Your task to perform on an android device: open app "Paramount+ | Peak Streaming" (install if not already installed) and enter user name: "fostered@yahoo.com" and password: "strong" Image 0: 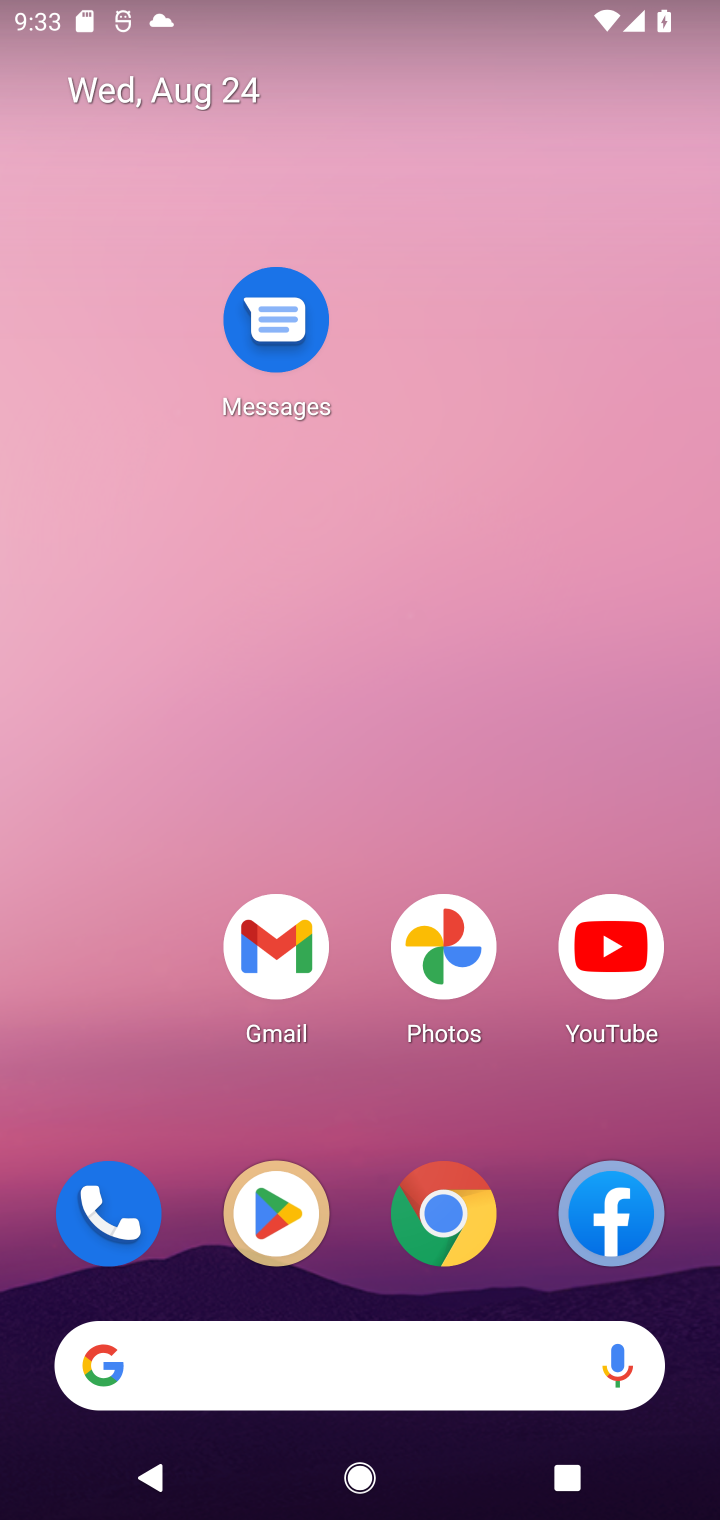
Step 0: click (299, 1213)
Your task to perform on an android device: open app "Paramount+ | Peak Streaming" (install if not already installed) and enter user name: "fostered@yahoo.com" and password: "strong" Image 1: 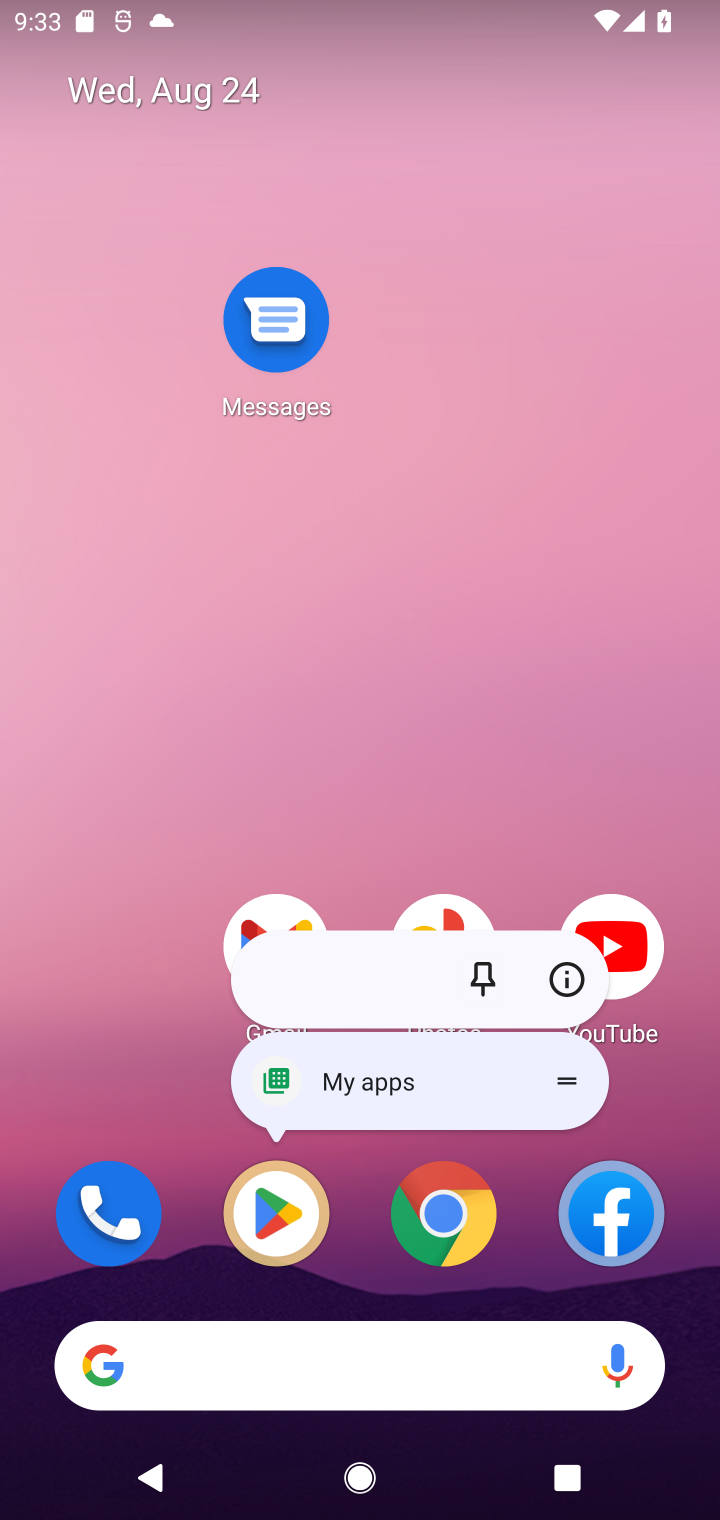
Step 1: click (274, 1233)
Your task to perform on an android device: open app "Paramount+ | Peak Streaming" (install if not already installed) and enter user name: "fostered@yahoo.com" and password: "strong" Image 2: 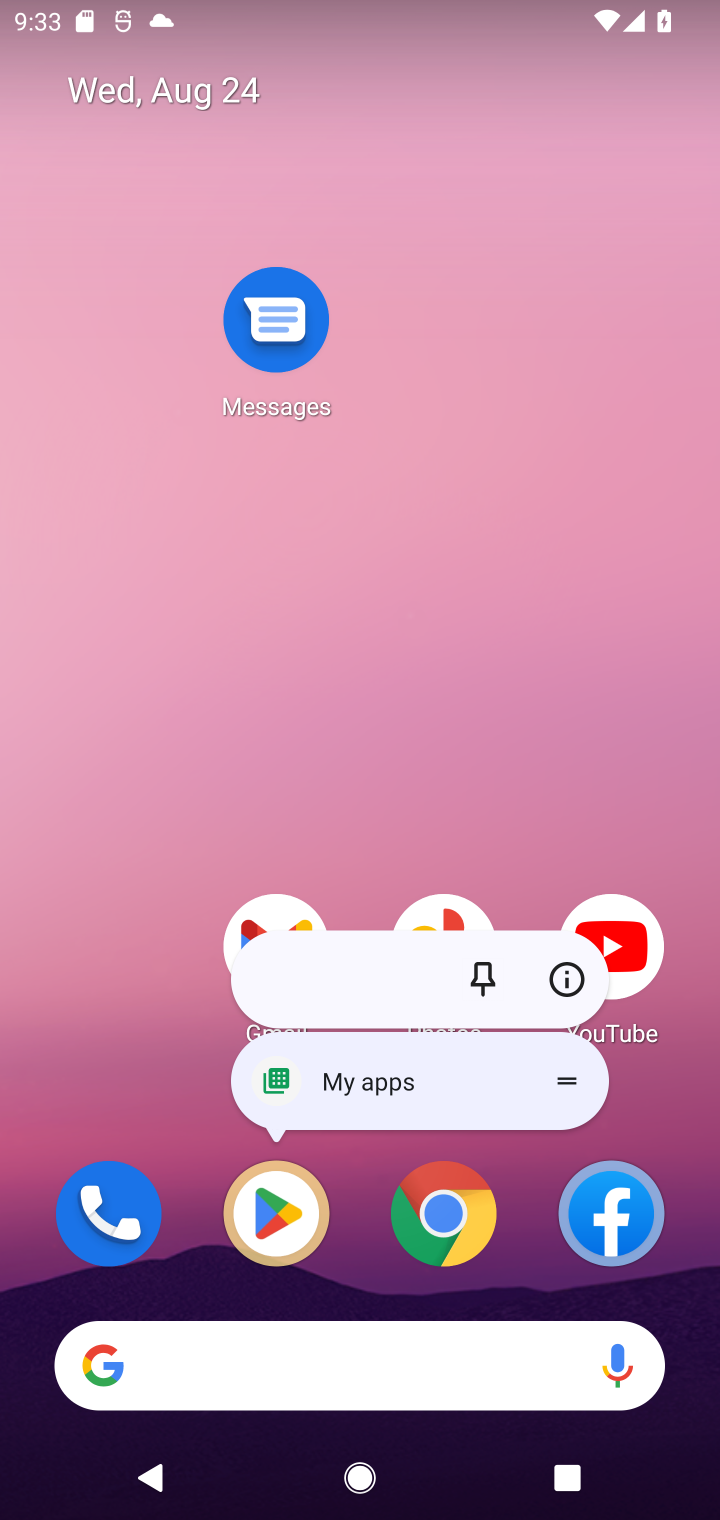
Step 2: click (276, 1231)
Your task to perform on an android device: open app "Paramount+ | Peak Streaming" (install if not already installed) and enter user name: "fostered@yahoo.com" and password: "strong" Image 3: 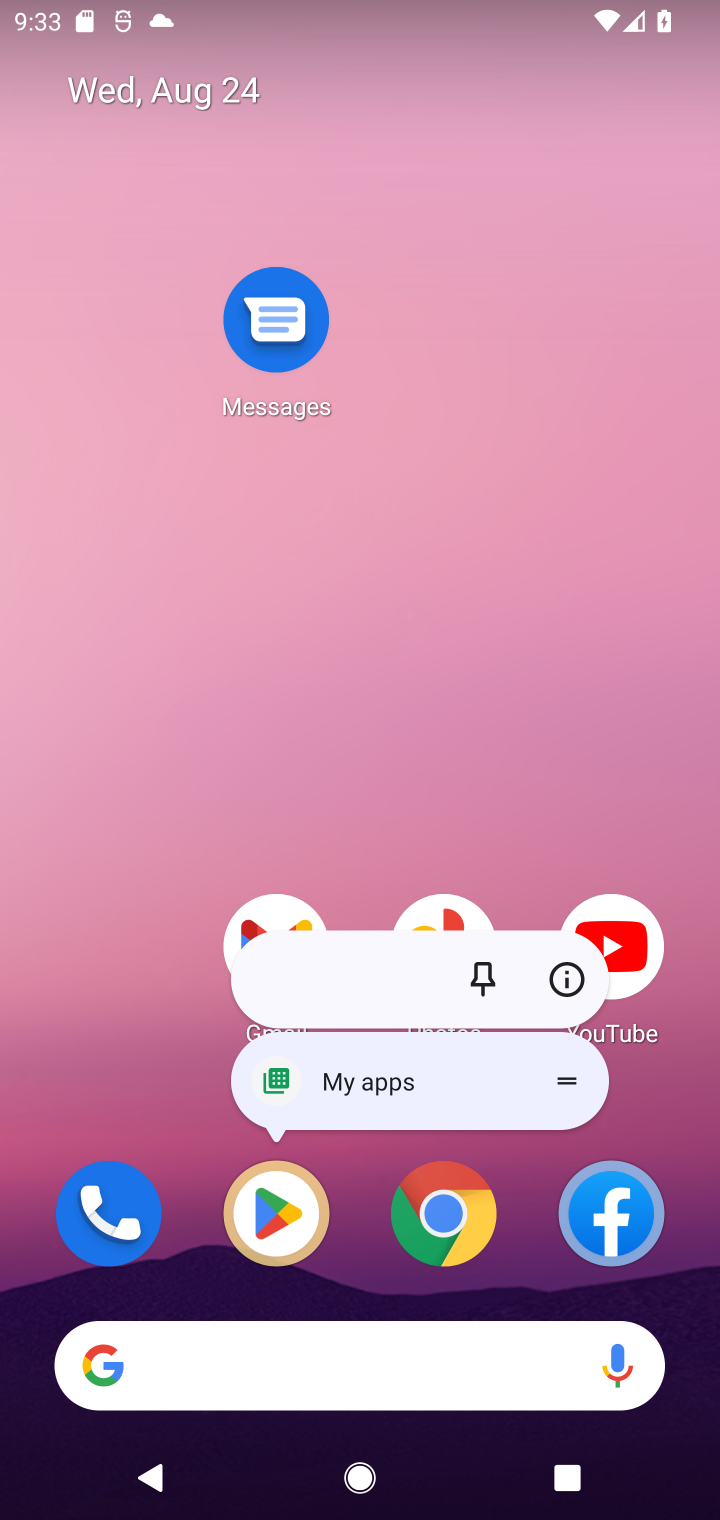
Step 3: click (305, 1203)
Your task to perform on an android device: open app "Paramount+ | Peak Streaming" (install if not already installed) and enter user name: "fostered@yahoo.com" and password: "strong" Image 4: 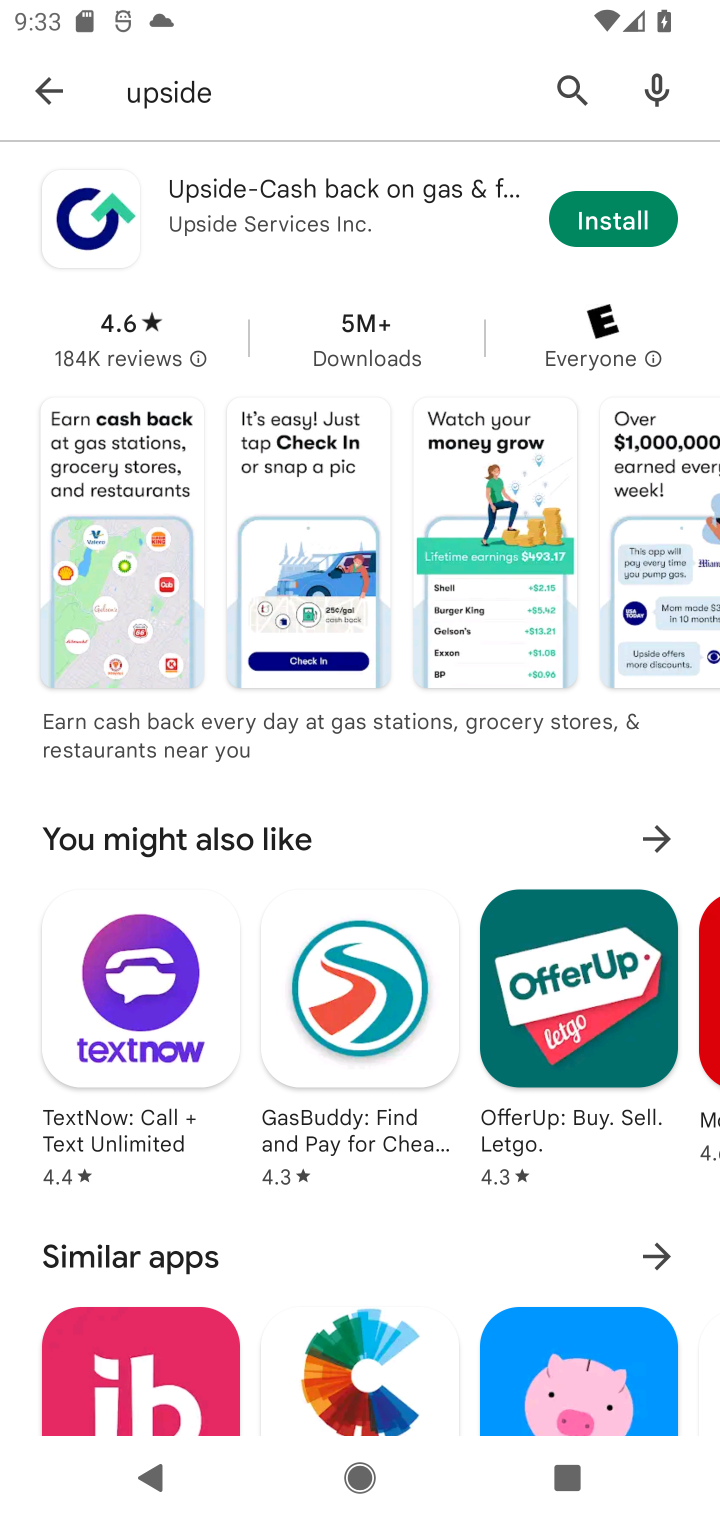
Step 4: click (302, 108)
Your task to perform on an android device: open app "Paramount+ | Peak Streaming" (install if not already installed) and enter user name: "fostered@yahoo.com" and password: "strong" Image 5: 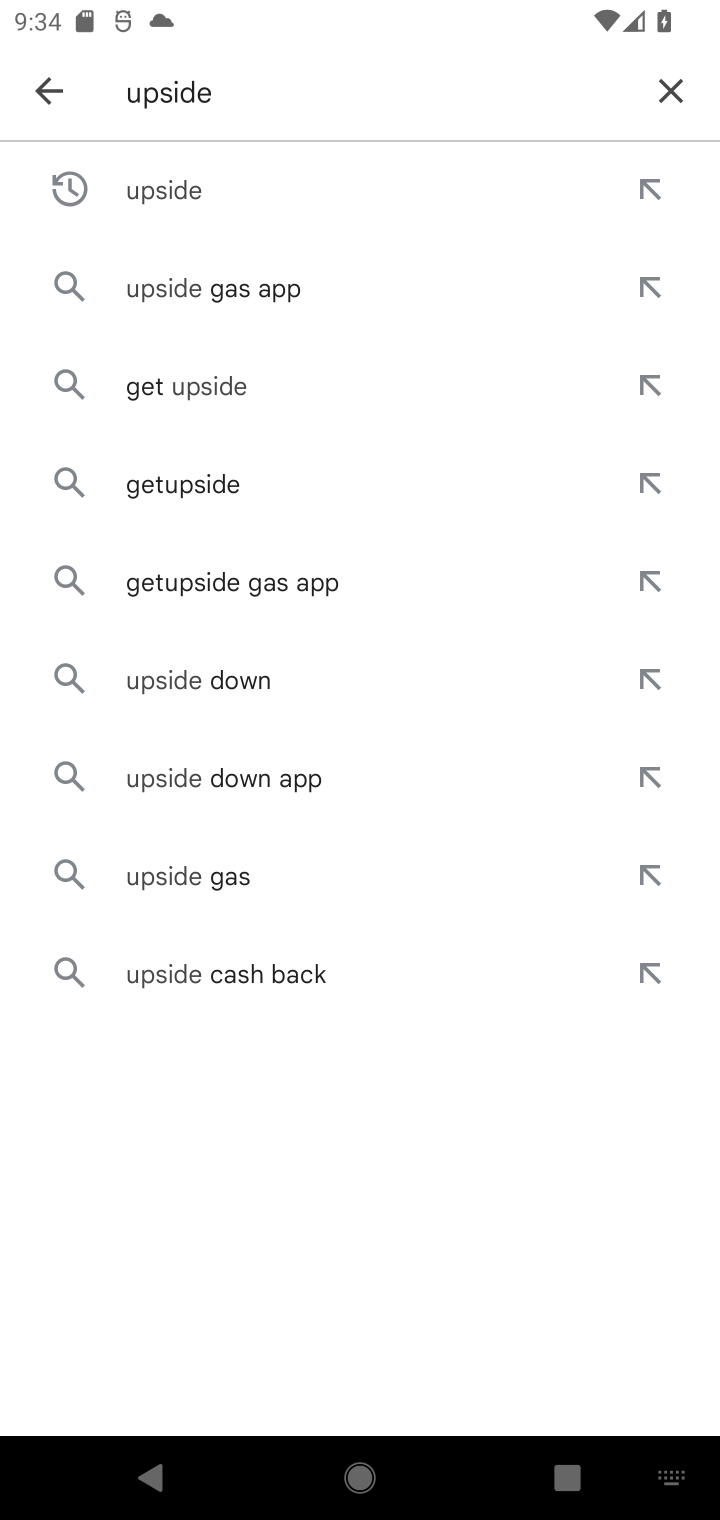
Step 5: click (672, 74)
Your task to perform on an android device: open app "Paramount+ | Peak Streaming" (install if not already installed) and enter user name: "fostered@yahoo.com" and password: "strong" Image 6: 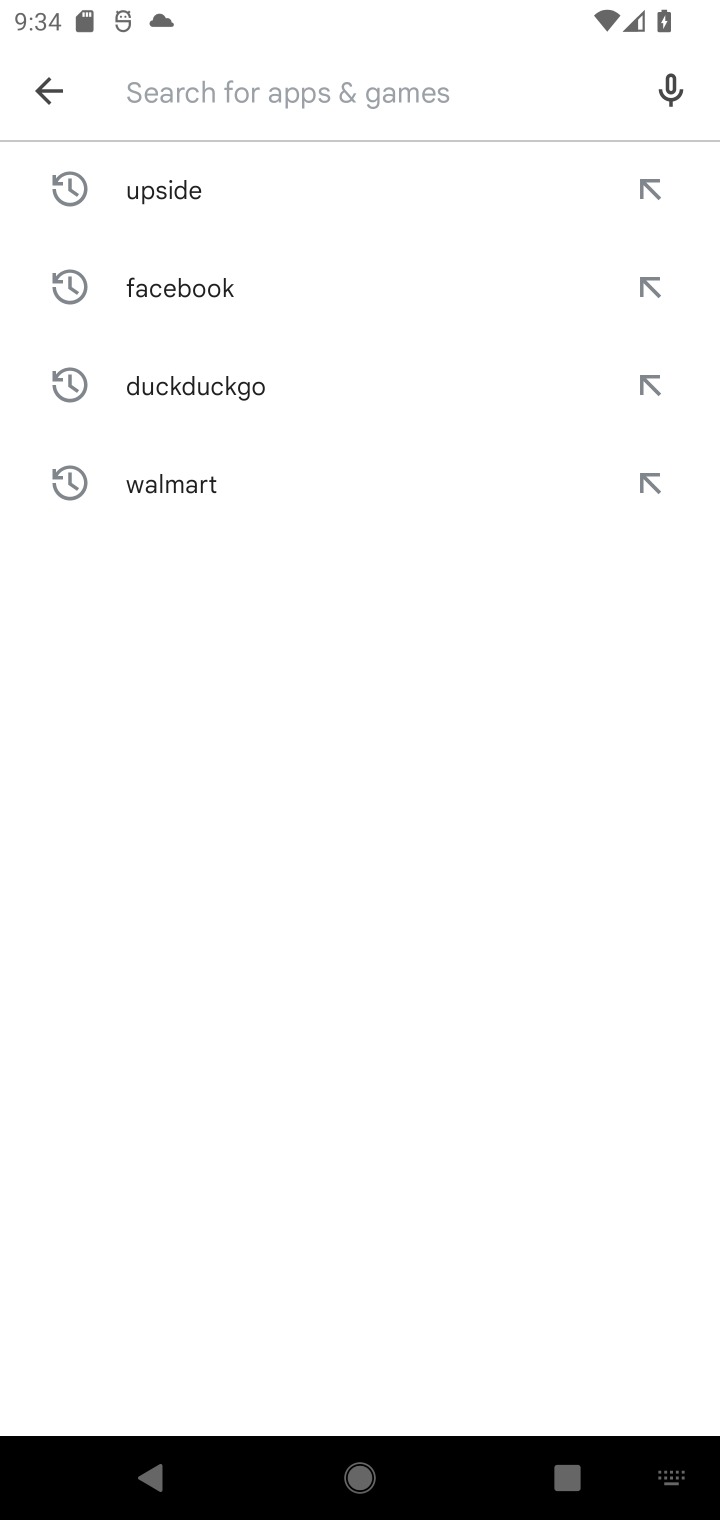
Step 6: type "paramount +"
Your task to perform on an android device: open app "Paramount+ | Peak Streaming" (install if not already installed) and enter user name: "fostered@yahoo.com" and password: "strong" Image 7: 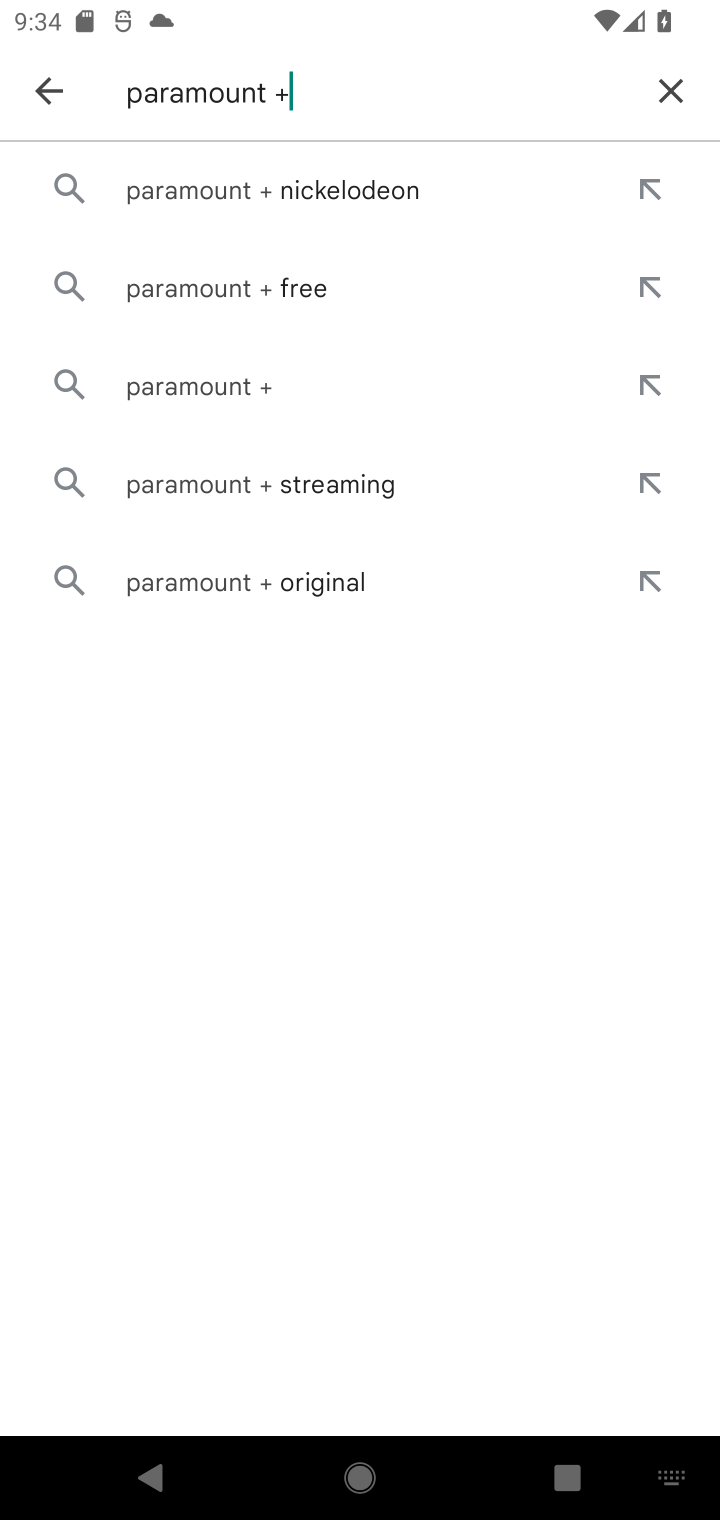
Step 7: click (272, 389)
Your task to perform on an android device: open app "Paramount+ | Peak Streaming" (install if not already installed) and enter user name: "fostered@yahoo.com" and password: "strong" Image 8: 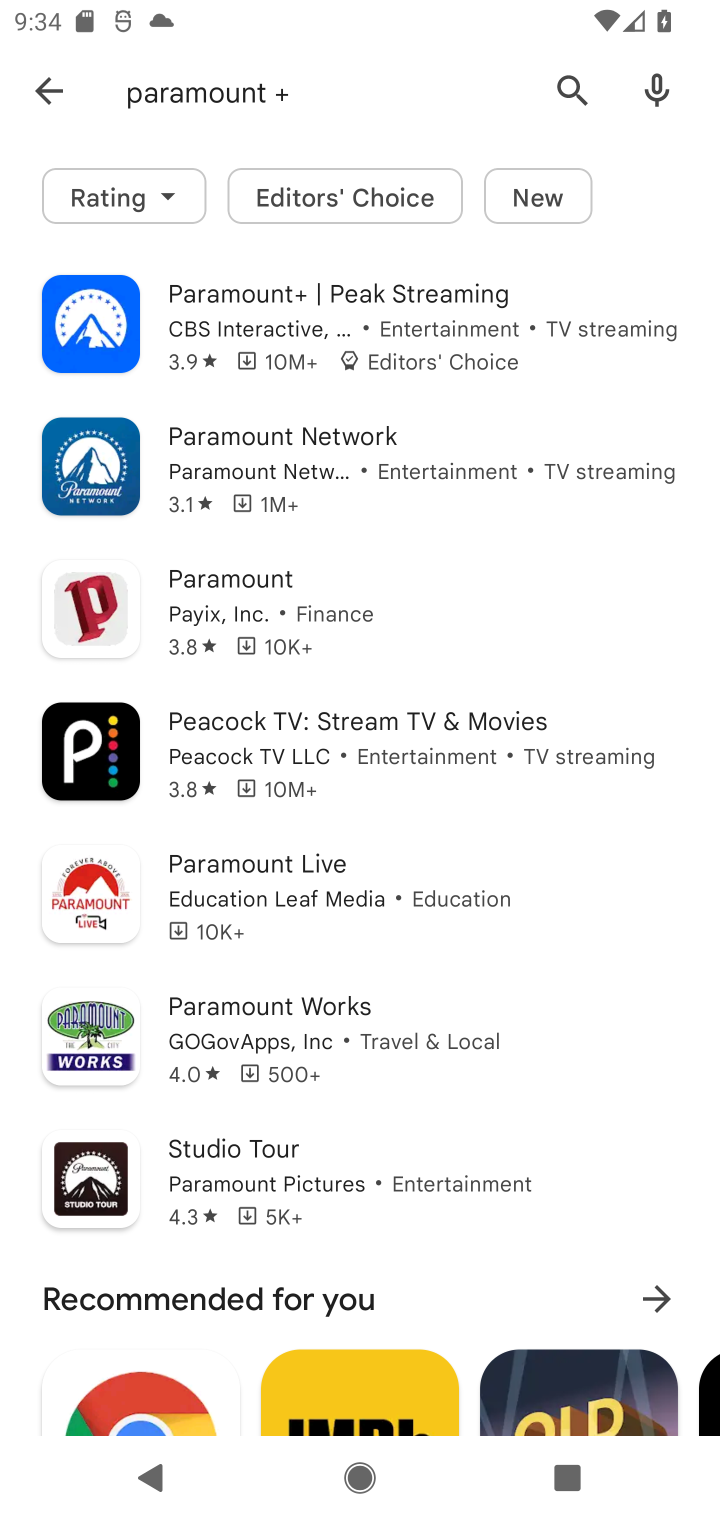
Step 8: click (338, 318)
Your task to perform on an android device: open app "Paramount+ | Peak Streaming" (install if not already installed) and enter user name: "fostered@yahoo.com" and password: "strong" Image 9: 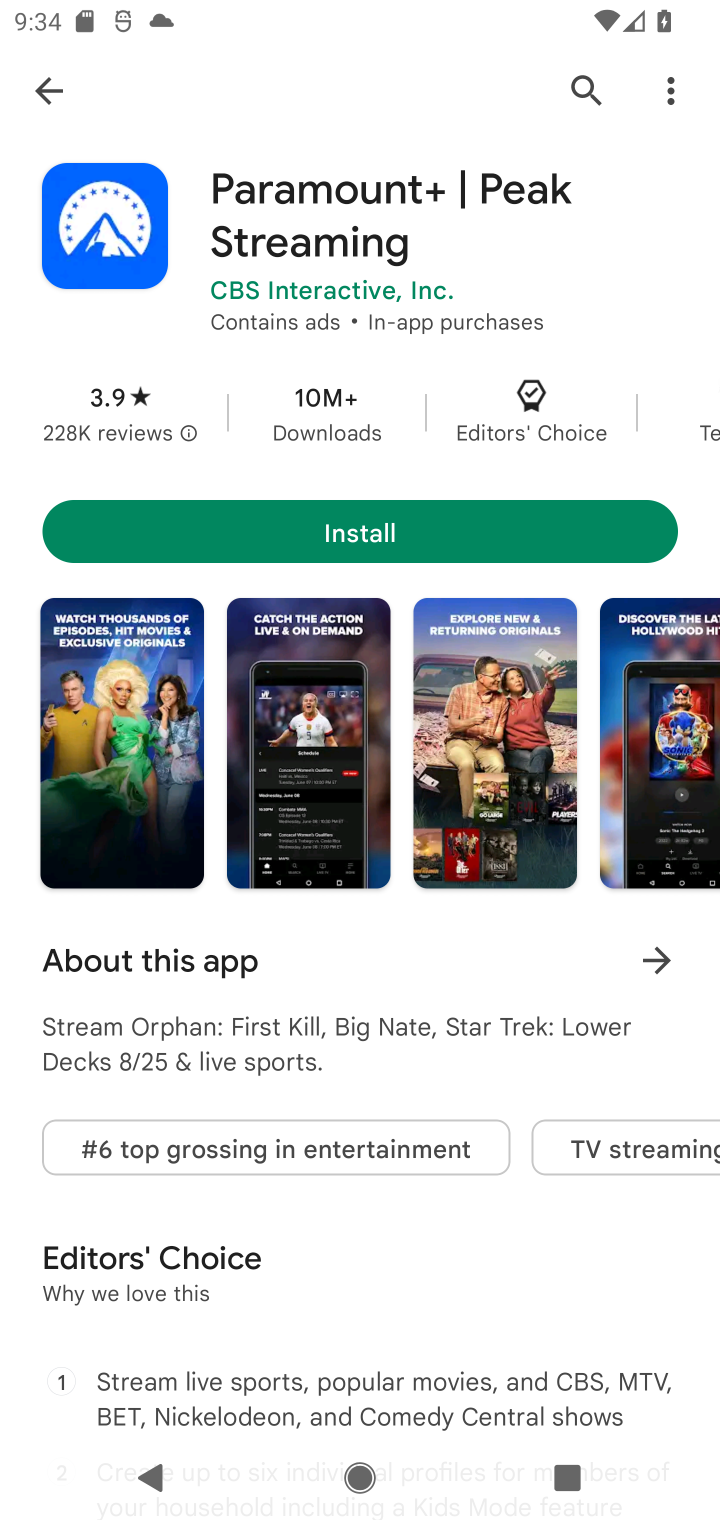
Step 9: click (383, 530)
Your task to perform on an android device: open app "Paramount+ | Peak Streaming" (install if not already installed) and enter user name: "fostered@yahoo.com" and password: "strong" Image 10: 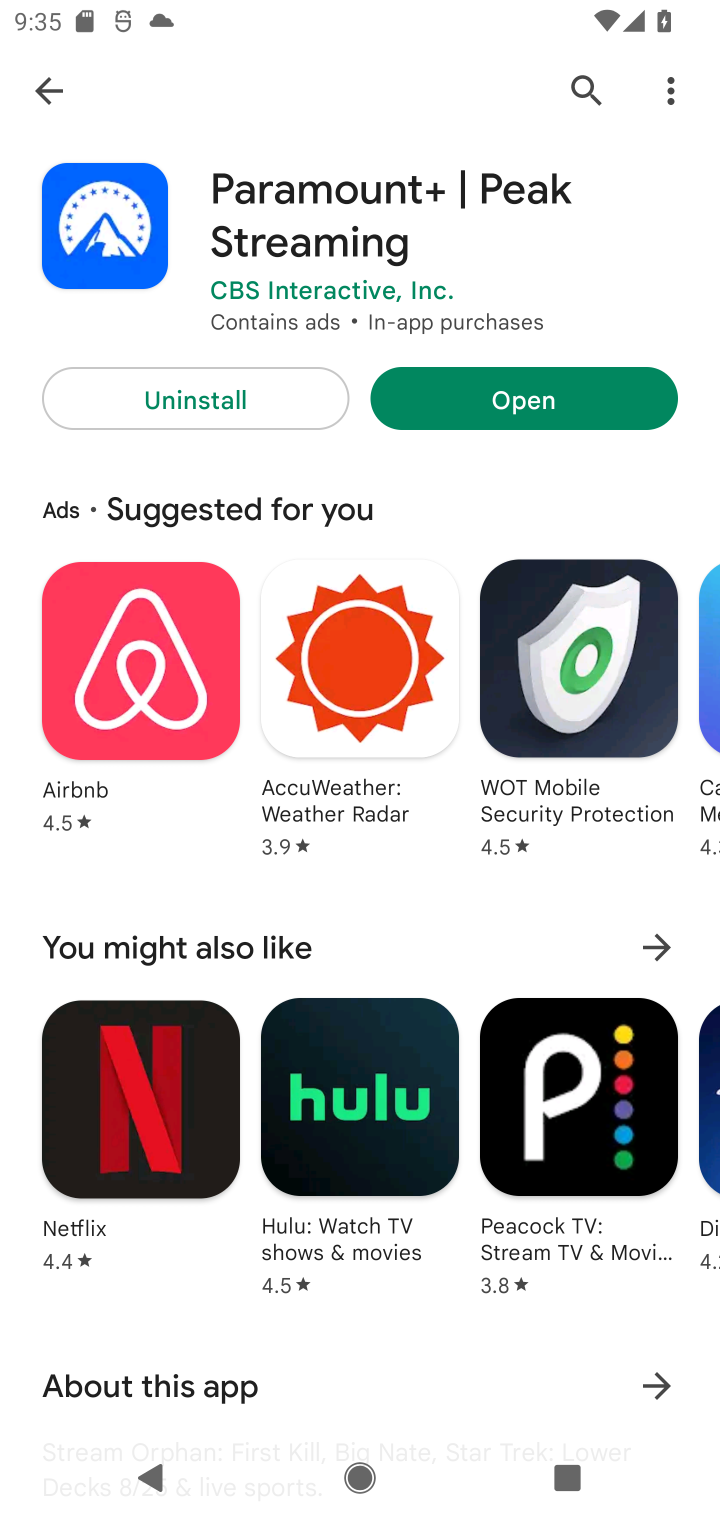
Step 10: click (509, 396)
Your task to perform on an android device: open app "Paramount+ | Peak Streaming" (install if not already installed) and enter user name: "fostered@yahoo.com" and password: "strong" Image 11: 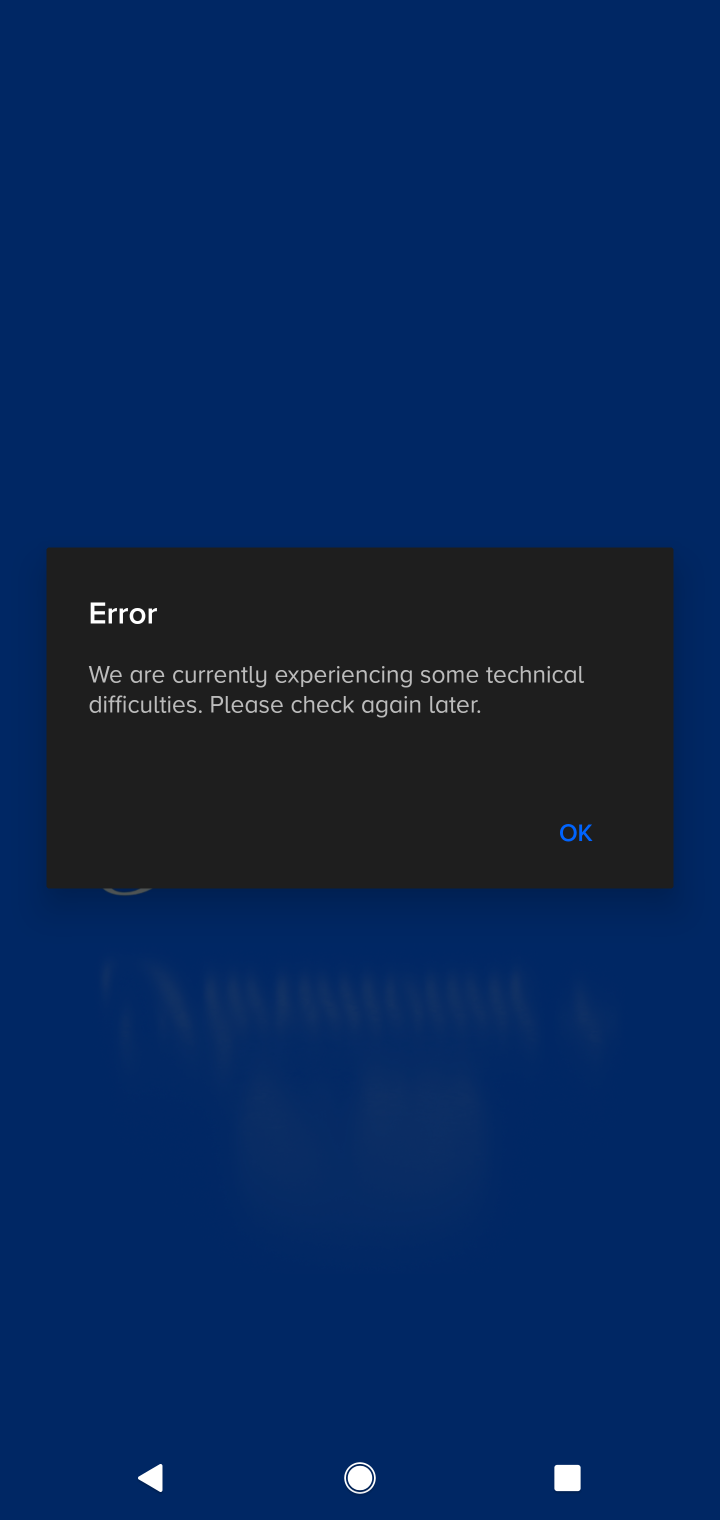
Step 11: click (598, 823)
Your task to perform on an android device: open app "Paramount+ | Peak Streaming" (install if not already installed) and enter user name: "fostered@yahoo.com" and password: "strong" Image 12: 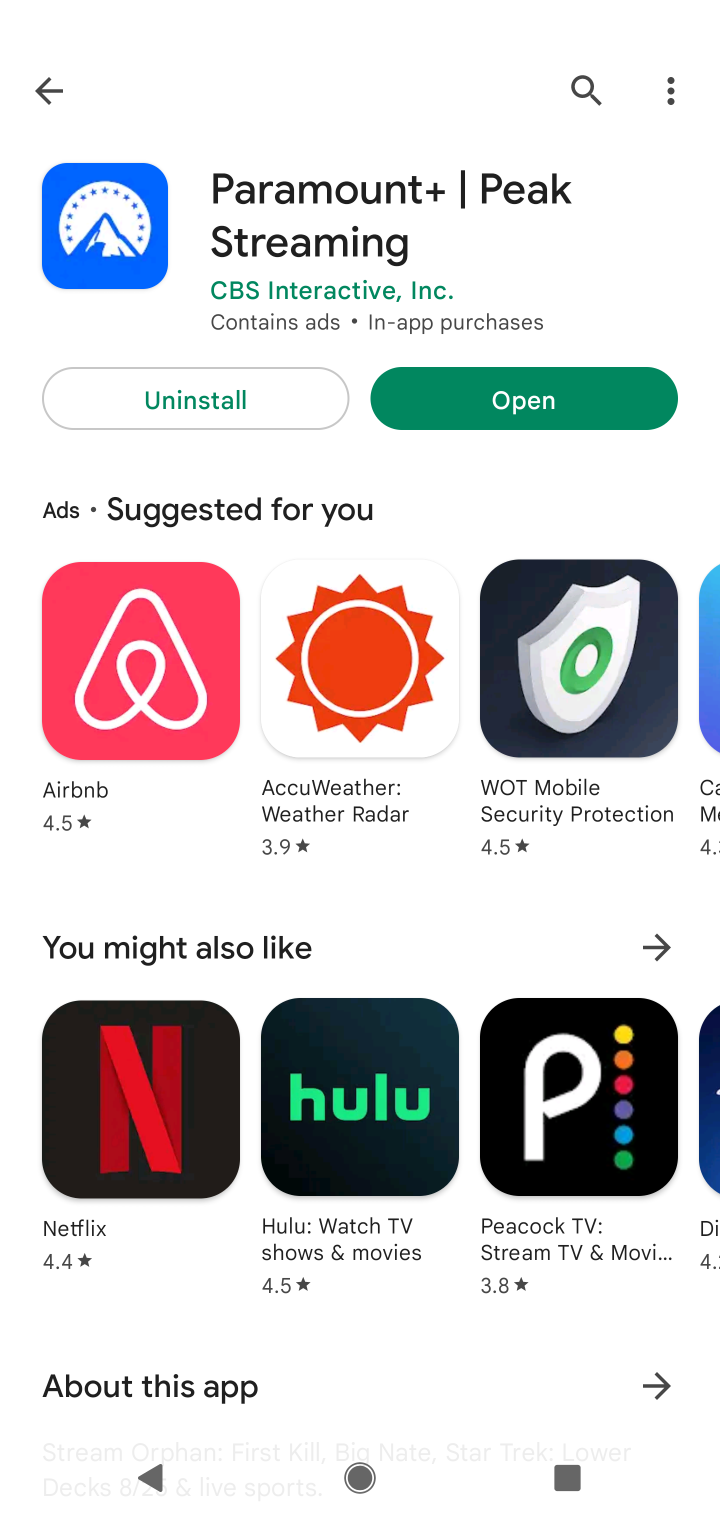
Step 12: click (573, 840)
Your task to perform on an android device: open app "Paramount+ | Peak Streaming" (install if not already installed) and enter user name: "fostered@yahoo.com" and password: "strong" Image 13: 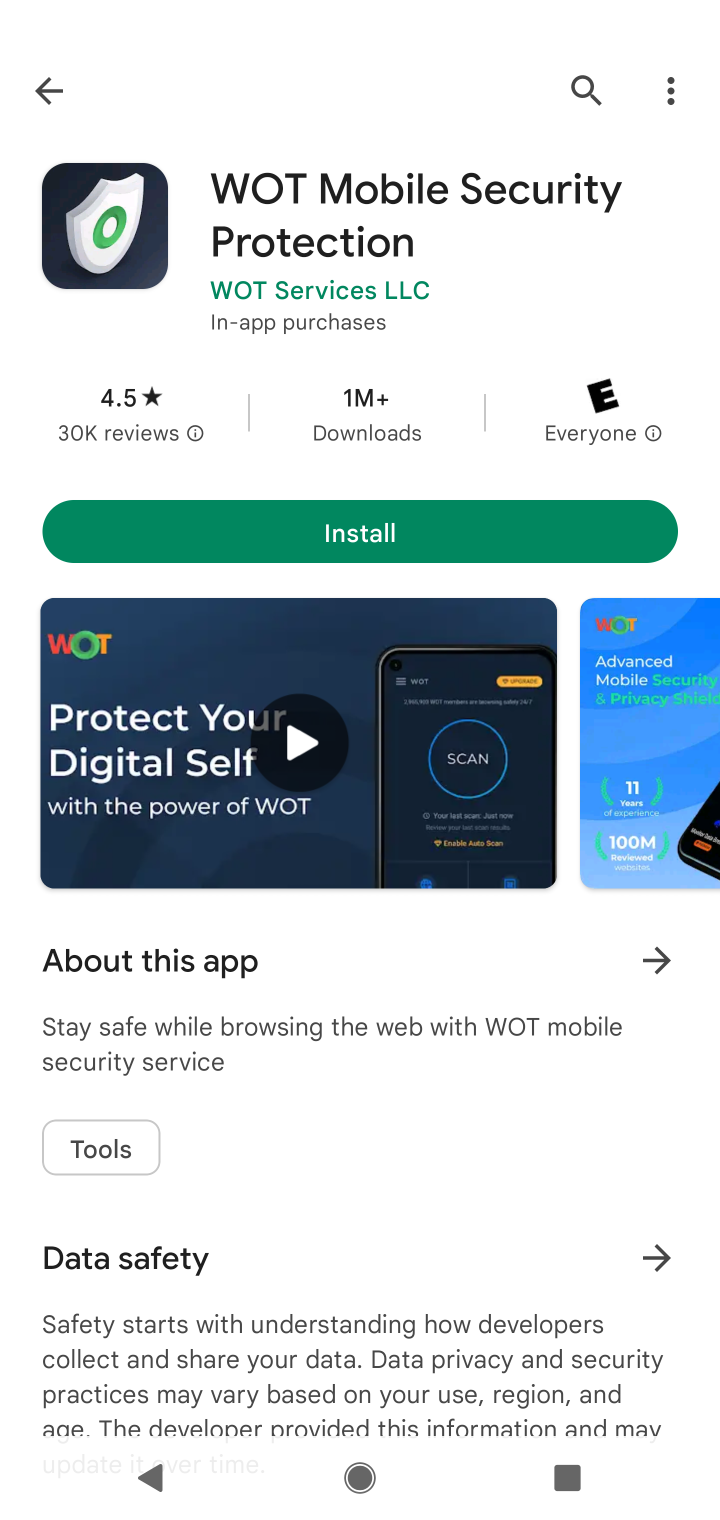
Step 13: task complete